Your task to perform on an android device: turn off notifications settings in the gmail app Image 0: 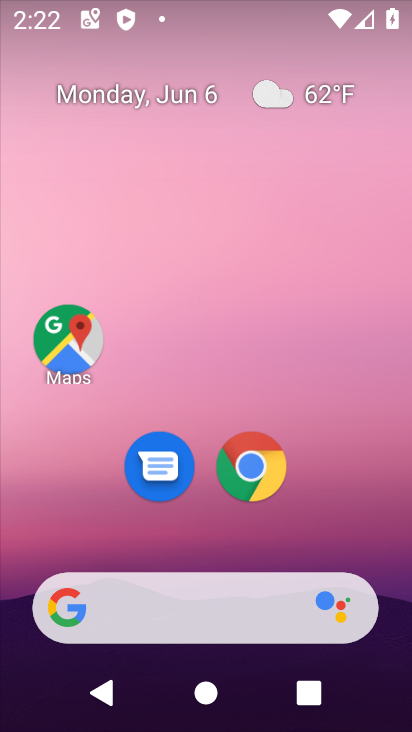
Step 0: drag from (272, 702) to (162, 209)
Your task to perform on an android device: turn off notifications settings in the gmail app Image 1: 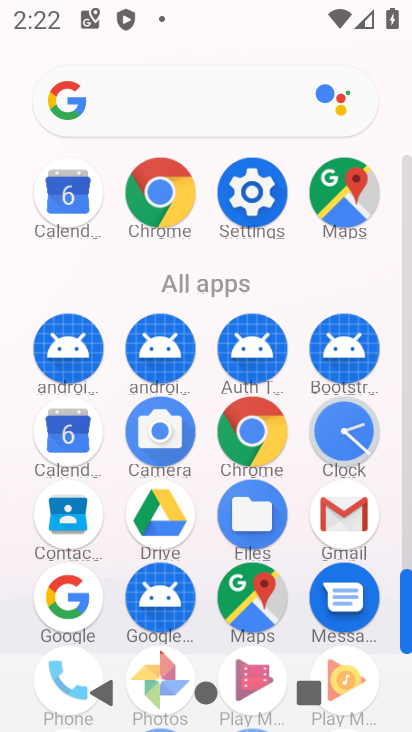
Step 1: click (360, 516)
Your task to perform on an android device: turn off notifications settings in the gmail app Image 2: 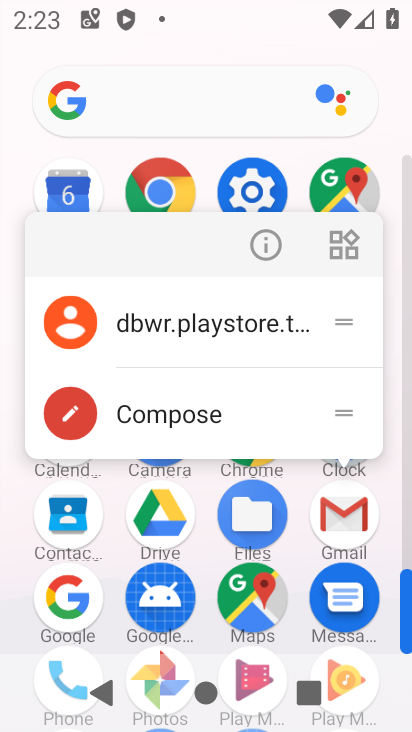
Step 2: click (141, 330)
Your task to perform on an android device: turn off notifications settings in the gmail app Image 3: 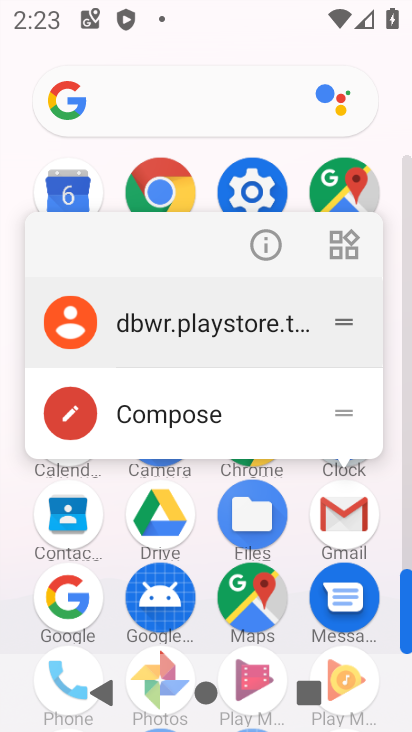
Step 3: click (147, 327)
Your task to perform on an android device: turn off notifications settings in the gmail app Image 4: 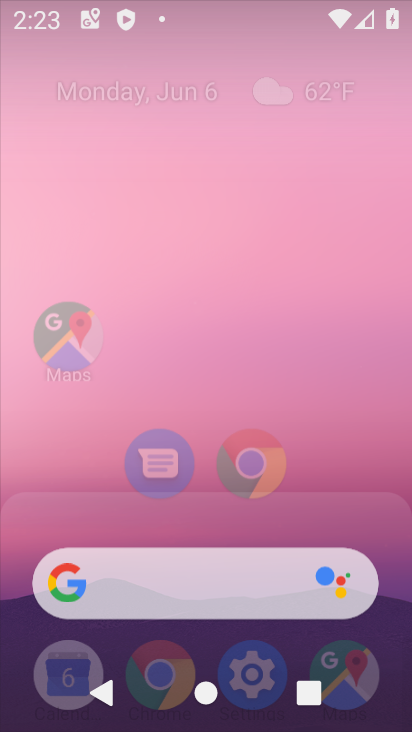
Step 4: click (158, 340)
Your task to perform on an android device: turn off notifications settings in the gmail app Image 5: 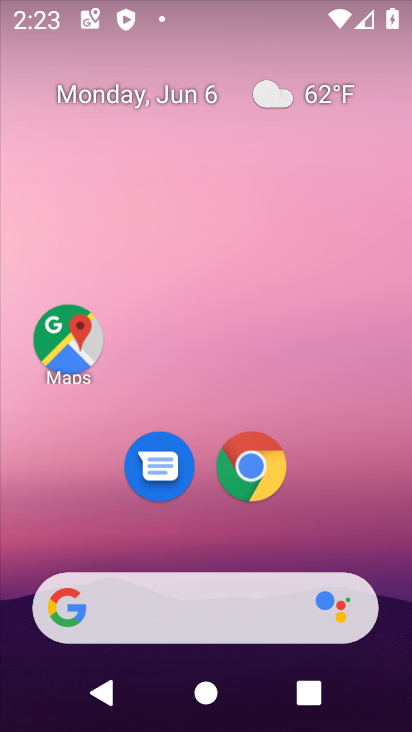
Step 5: drag from (257, 703) to (170, 6)
Your task to perform on an android device: turn off notifications settings in the gmail app Image 6: 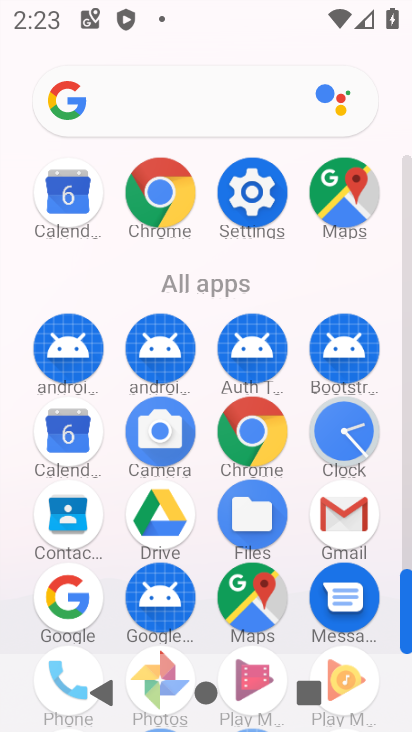
Step 6: click (344, 520)
Your task to perform on an android device: turn off notifications settings in the gmail app Image 7: 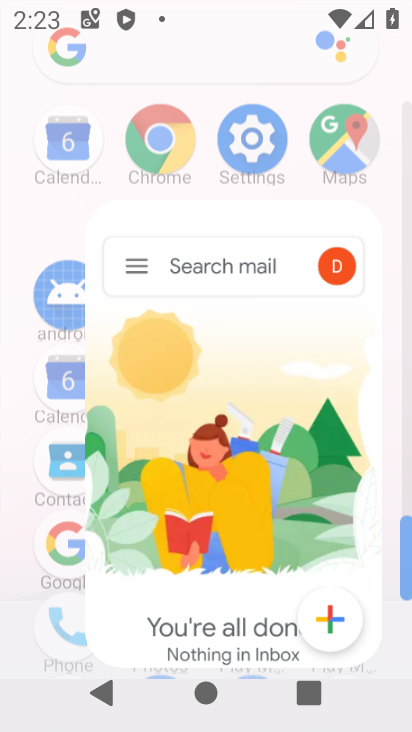
Step 7: click (344, 520)
Your task to perform on an android device: turn off notifications settings in the gmail app Image 8: 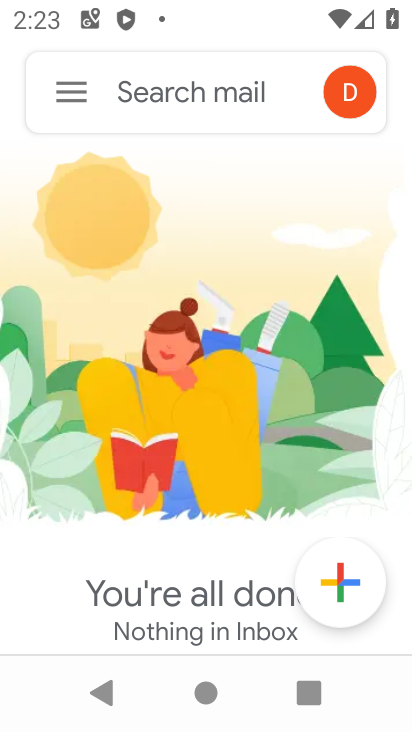
Step 8: click (60, 94)
Your task to perform on an android device: turn off notifications settings in the gmail app Image 9: 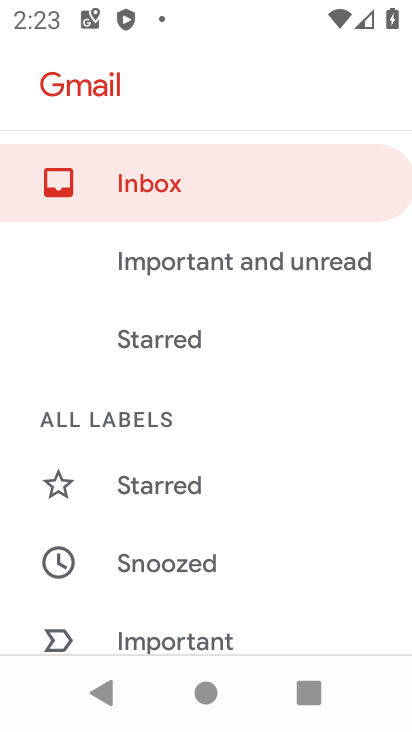
Step 9: drag from (189, 579) to (118, 214)
Your task to perform on an android device: turn off notifications settings in the gmail app Image 10: 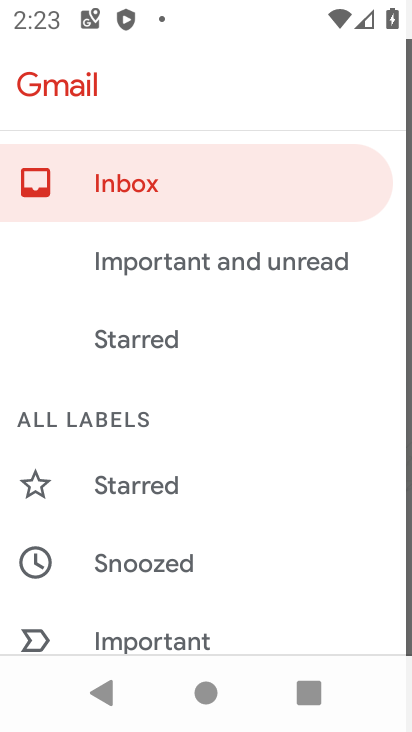
Step 10: drag from (231, 483) to (118, 196)
Your task to perform on an android device: turn off notifications settings in the gmail app Image 11: 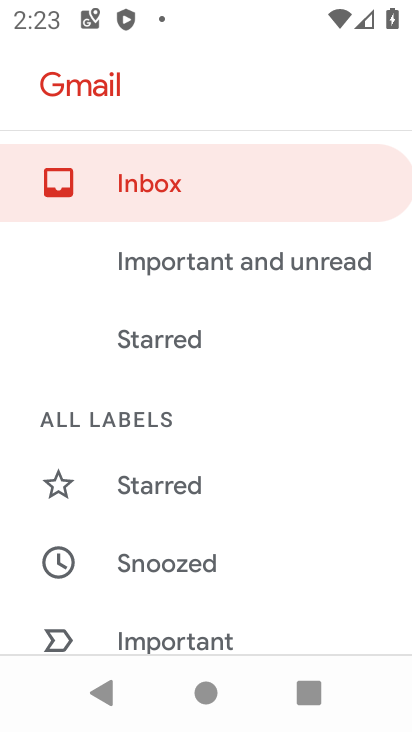
Step 11: drag from (220, 490) to (208, 75)
Your task to perform on an android device: turn off notifications settings in the gmail app Image 12: 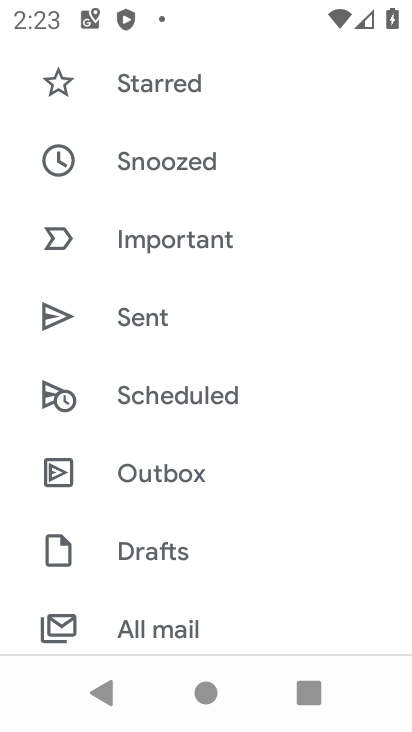
Step 12: drag from (202, 437) to (239, 238)
Your task to perform on an android device: turn off notifications settings in the gmail app Image 13: 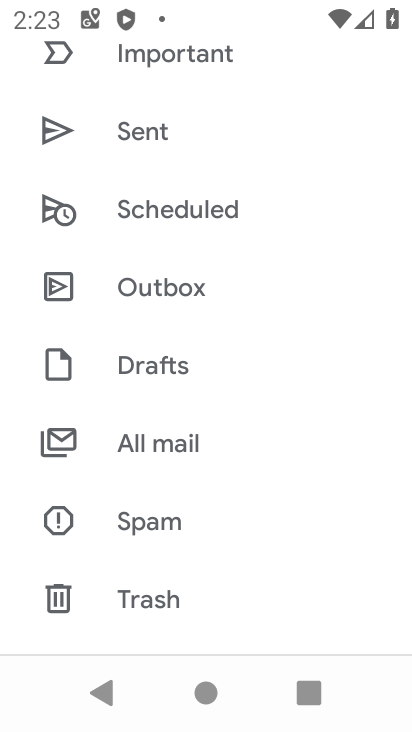
Step 13: drag from (249, 457) to (267, 68)
Your task to perform on an android device: turn off notifications settings in the gmail app Image 14: 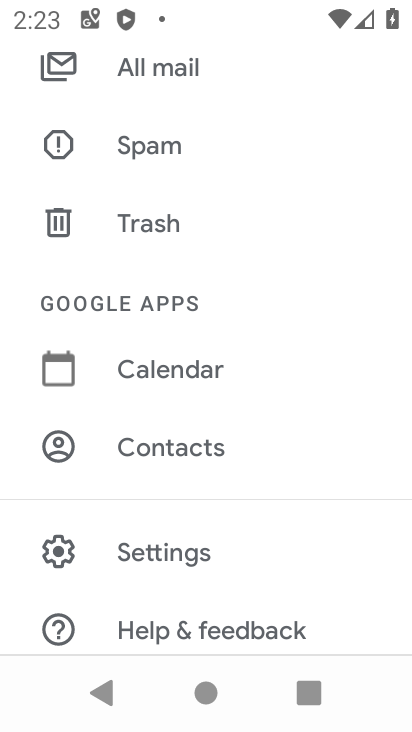
Step 14: drag from (276, 448) to (229, 68)
Your task to perform on an android device: turn off notifications settings in the gmail app Image 15: 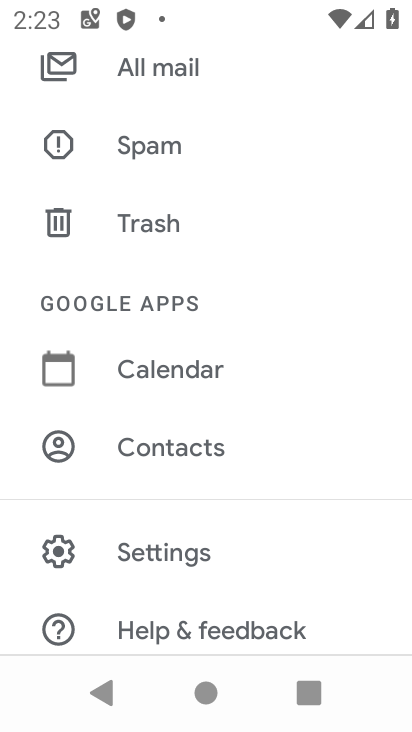
Step 15: drag from (227, 422) to (208, 146)
Your task to perform on an android device: turn off notifications settings in the gmail app Image 16: 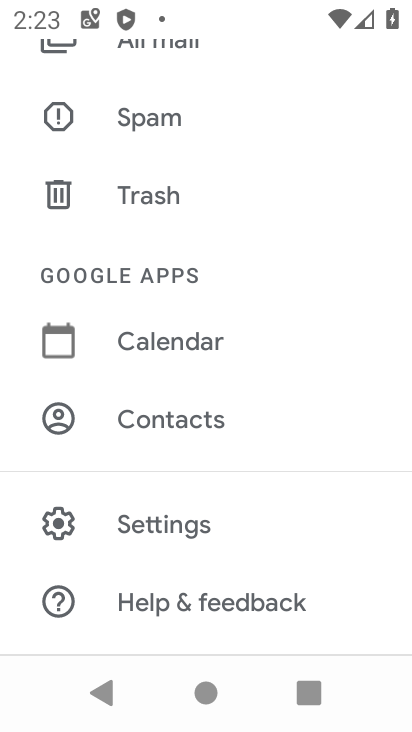
Step 16: click (142, 517)
Your task to perform on an android device: turn off notifications settings in the gmail app Image 17: 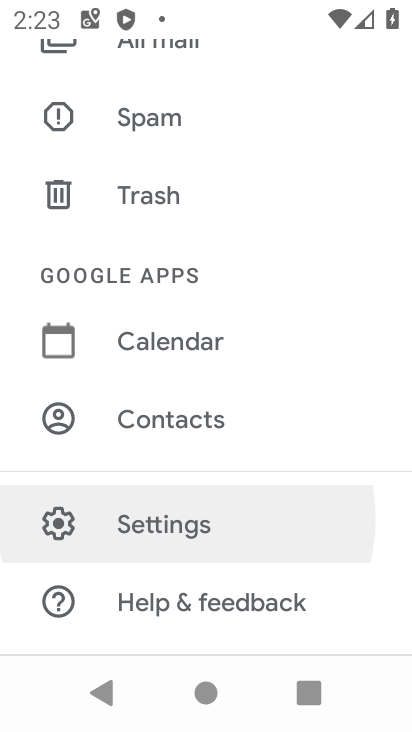
Step 17: click (147, 513)
Your task to perform on an android device: turn off notifications settings in the gmail app Image 18: 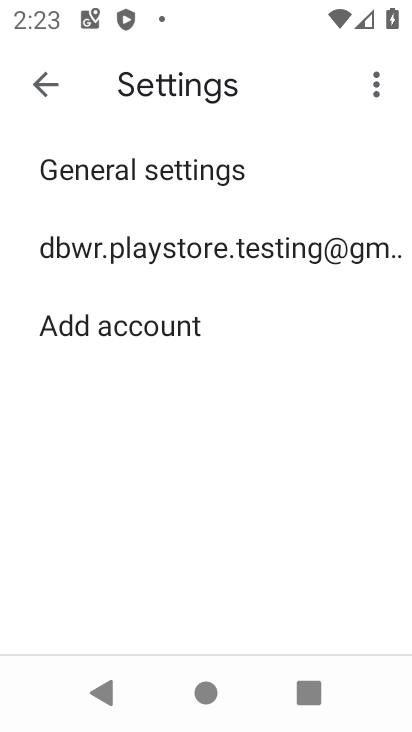
Step 18: click (179, 252)
Your task to perform on an android device: turn off notifications settings in the gmail app Image 19: 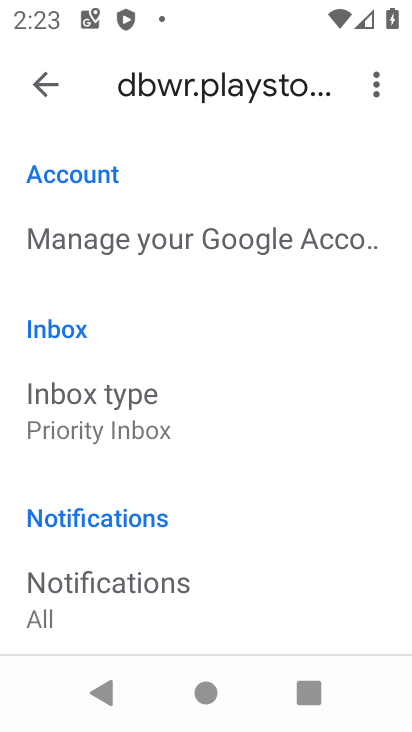
Step 19: click (57, 577)
Your task to perform on an android device: turn off notifications settings in the gmail app Image 20: 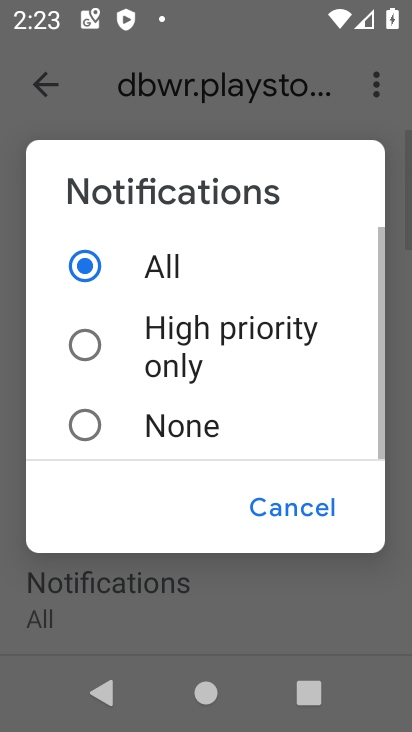
Step 20: click (86, 411)
Your task to perform on an android device: turn off notifications settings in the gmail app Image 21: 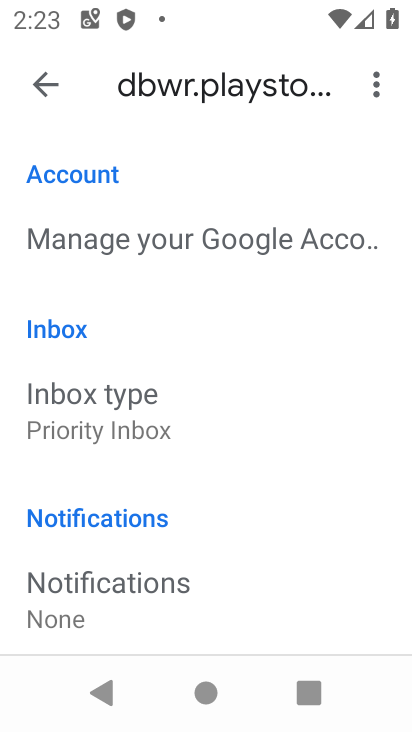
Step 21: task complete